Your task to perform on an android device: Open the map Image 0: 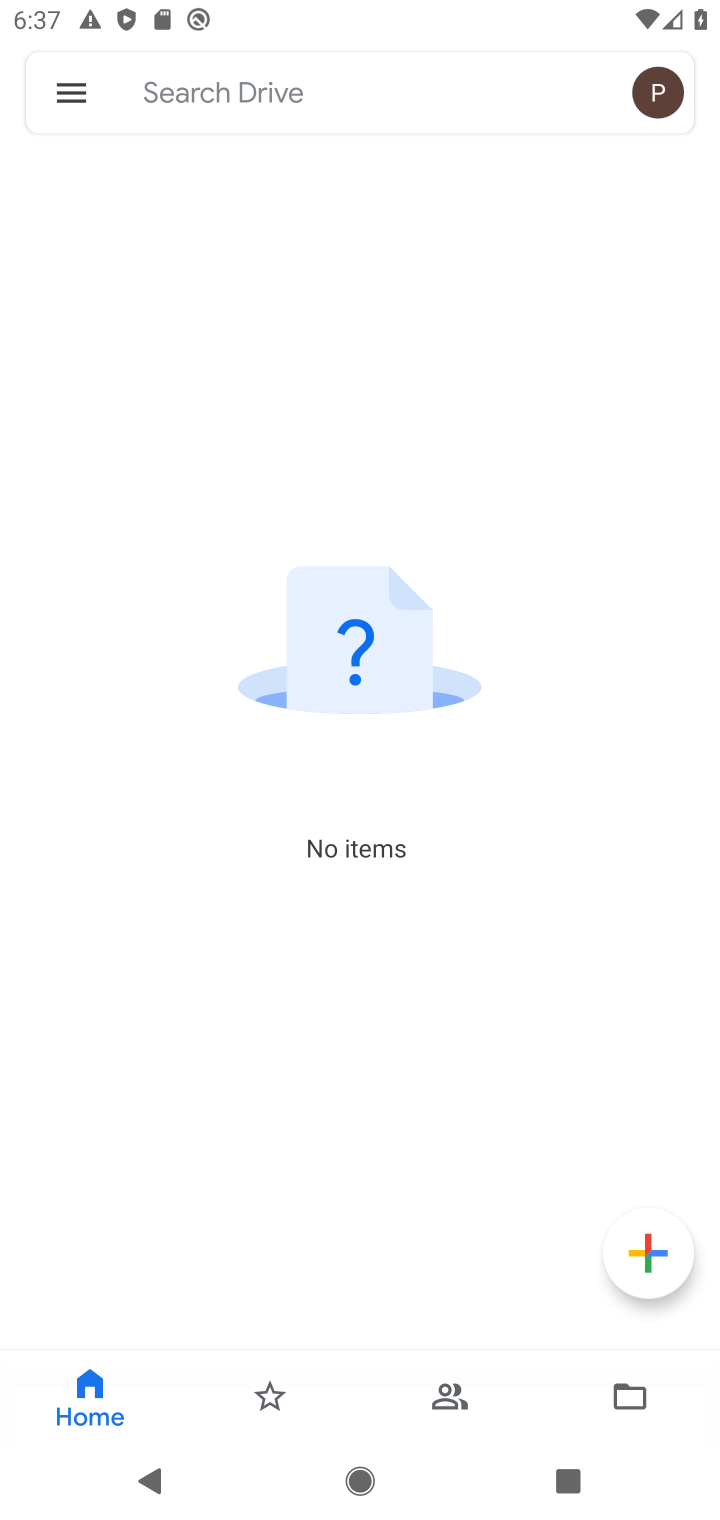
Step 0: press home button
Your task to perform on an android device: Open the map Image 1: 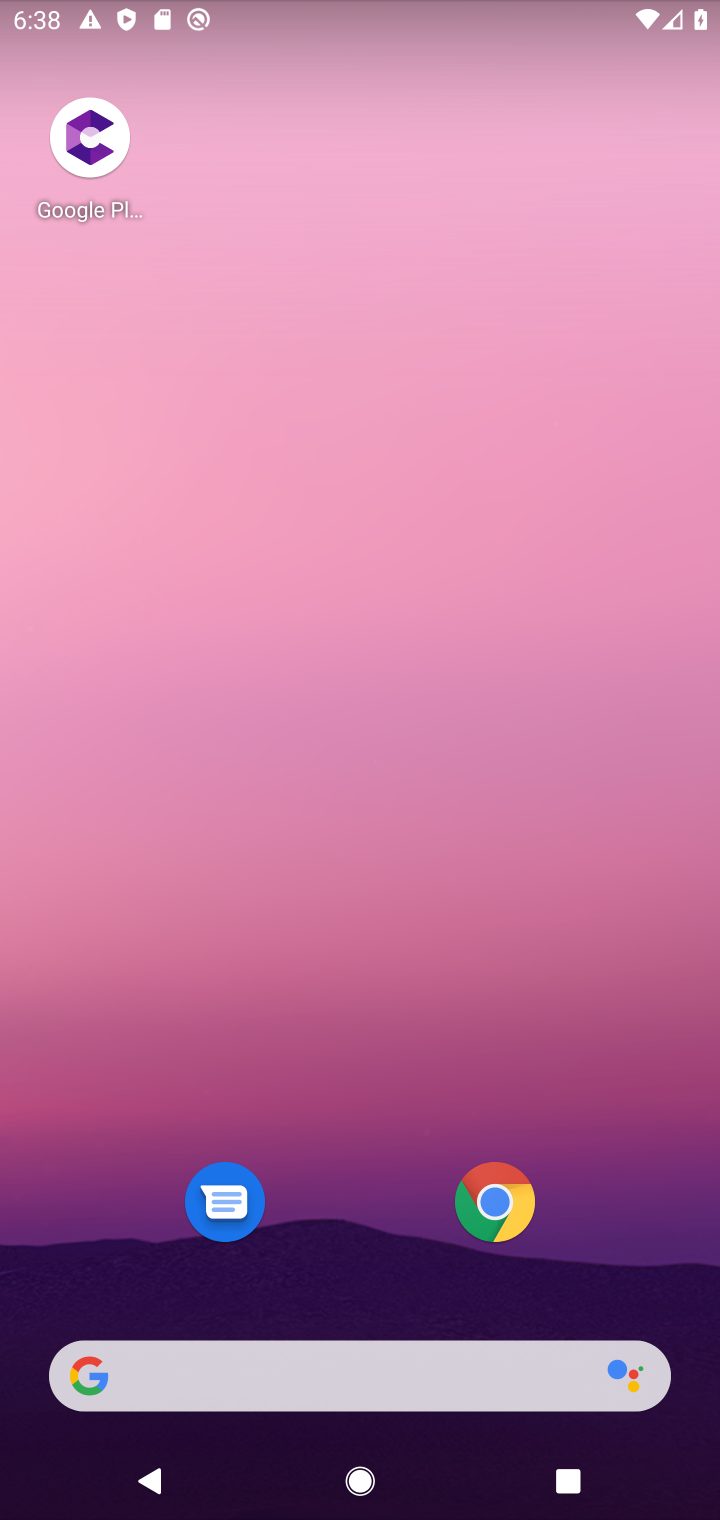
Step 1: drag from (646, 1297) to (314, 62)
Your task to perform on an android device: Open the map Image 2: 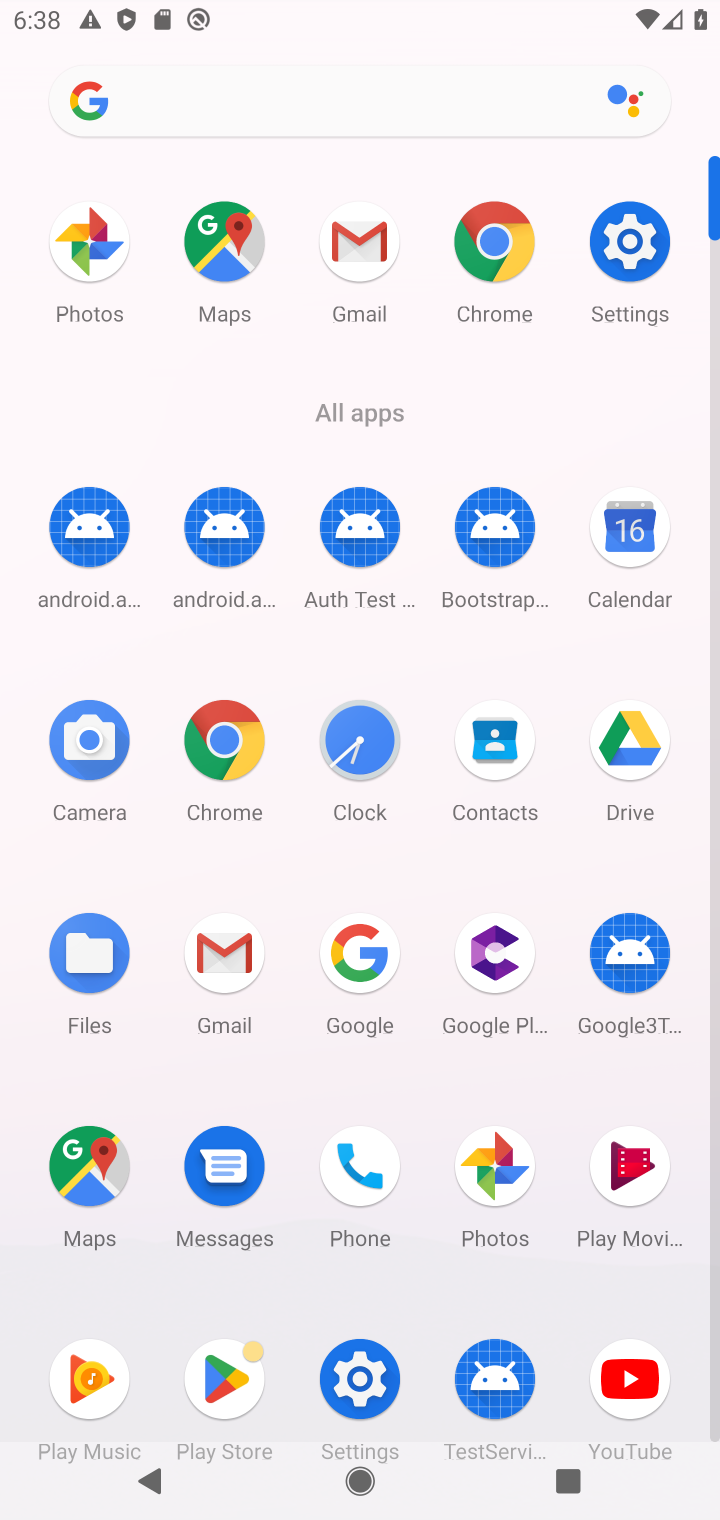
Step 2: click (80, 1176)
Your task to perform on an android device: Open the map Image 3: 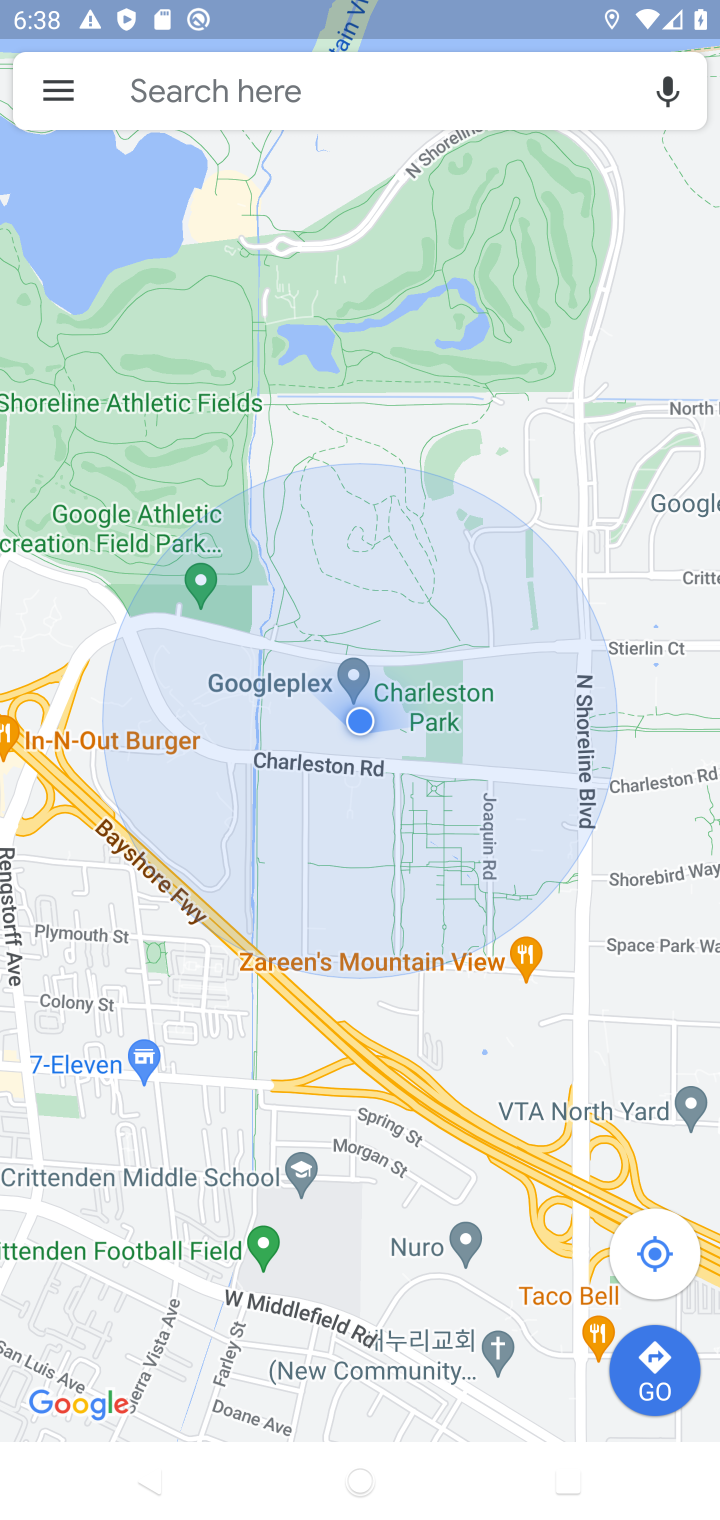
Step 3: task complete